Your task to perform on an android device: Open battery settings Image 0: 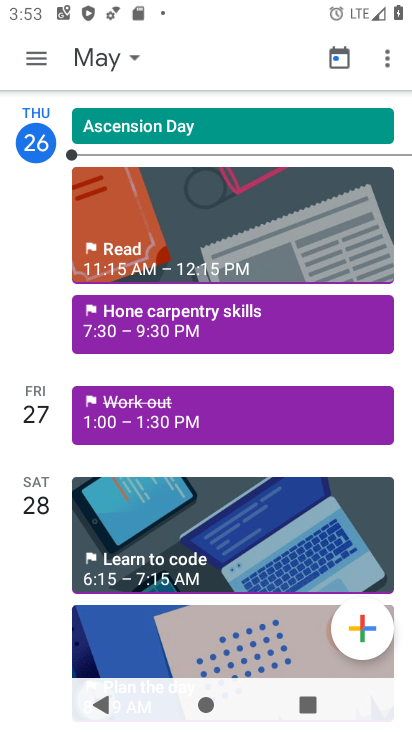
Step 0: press back button
Your task to perform on an android device: Open battery settings Image 1: 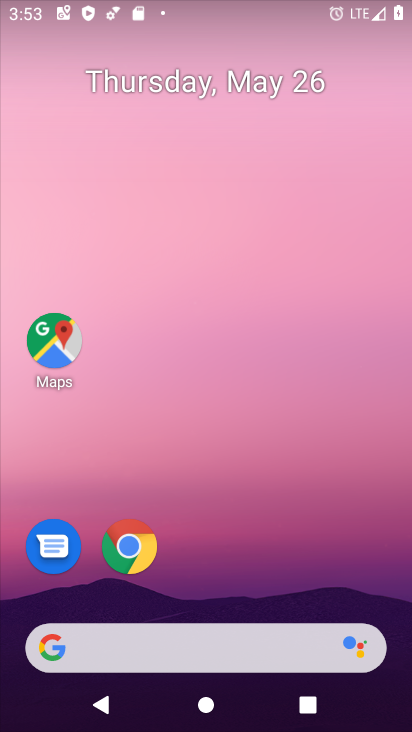
Step 1: drag from (308, 540) to (299, 33)
Your task to perform on an android device: Open battery settings Image 2: 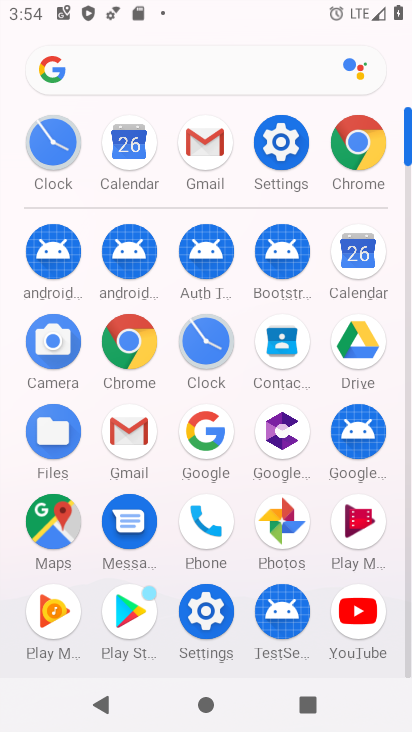
Step 2: click (296, 144)
Your task to perform on an android device: Open battery settings Image 3: 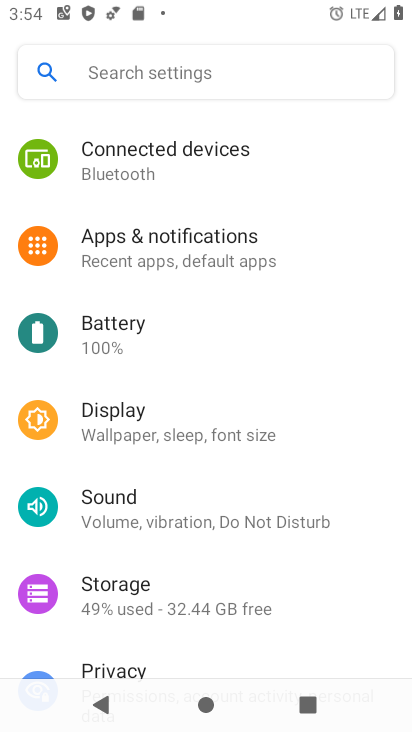
Step 3: click (128, 335)
Your task to perform on an android device: Open battery settings Image 4: 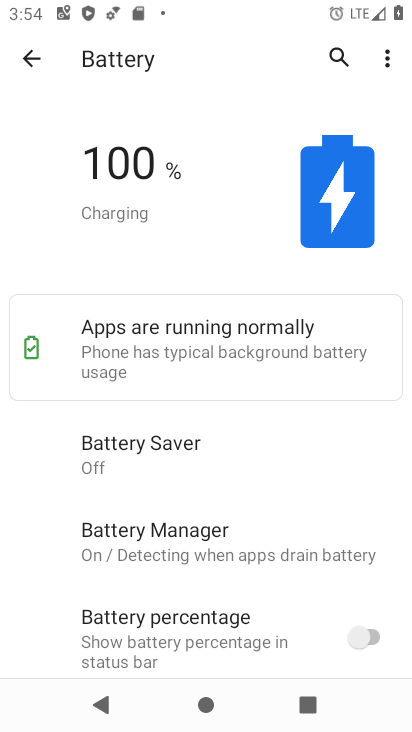
Step 4: task complete